Your task to perform on an android device: open chrome privacy settings Image 0: 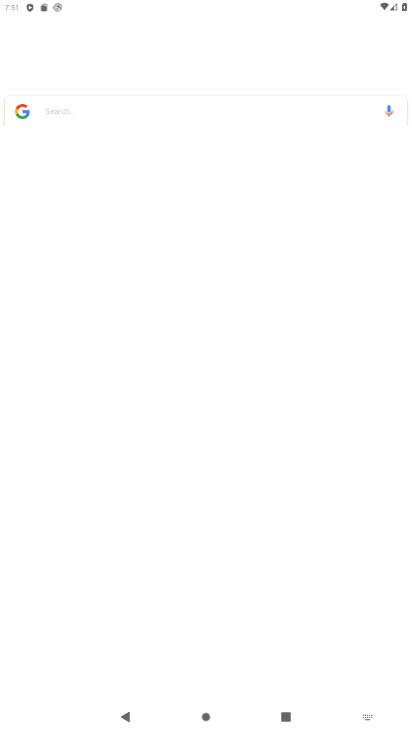
Step 0: press home button
Your task to perform on an android device: open chrome privacy settings Image 1: 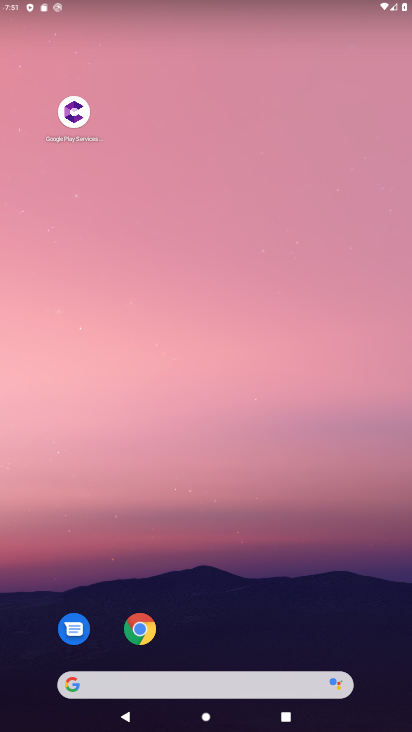
Step 1: click (139, 638)
Your task to perform on an android device: open chrome privacy settings Image 2: 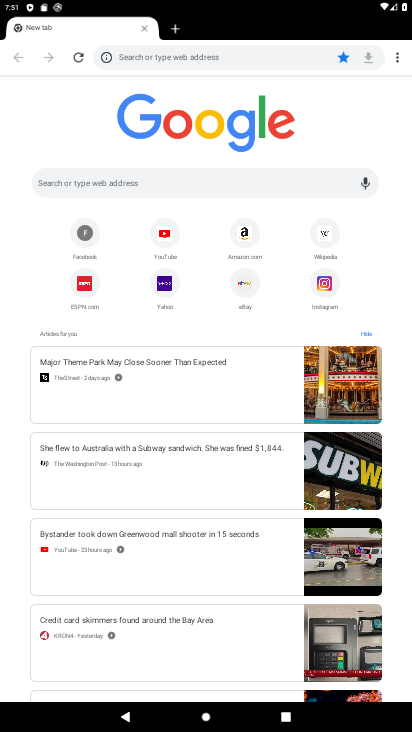
Step 2: click (398, 60)
Your task to perform on an android device: open chrome privacy settings Image 3: 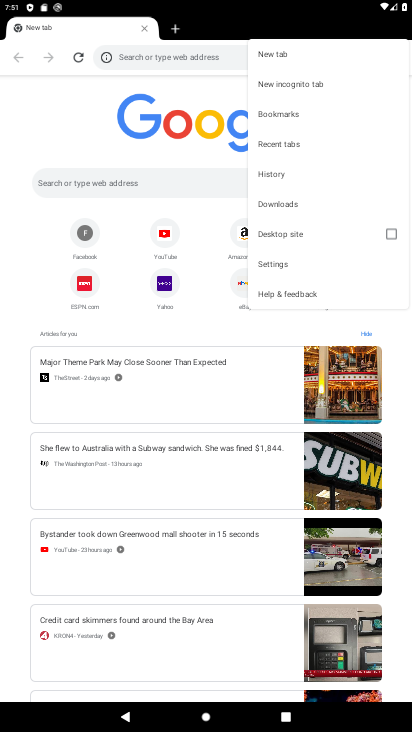
Step 3: click (272, 263)
Your task to perform on an android device: open chrome privacy settings Image 4: 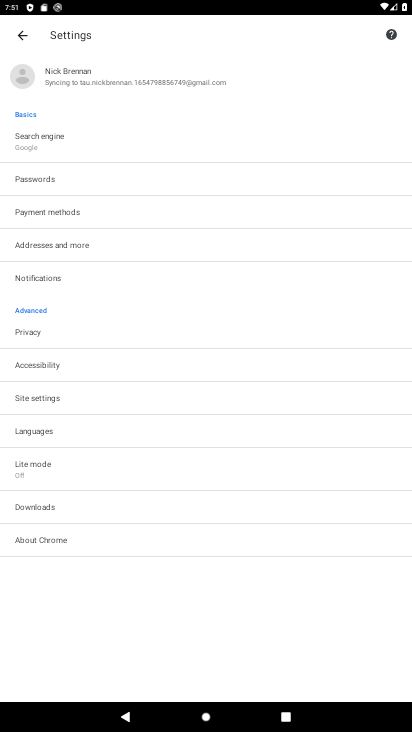
Step 4: click (35, 332)
Your task to perform on an android device: open chrome privacy settings Image 5: 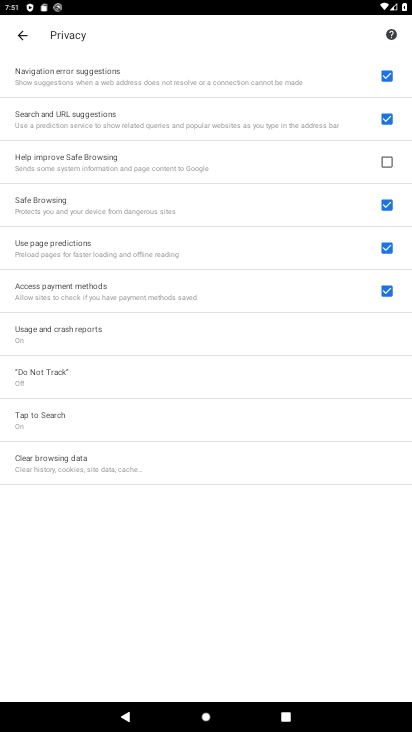
Step 5: task complete